Your task to perform on an android device: Open calendar and show me the first week of next month Image 0: 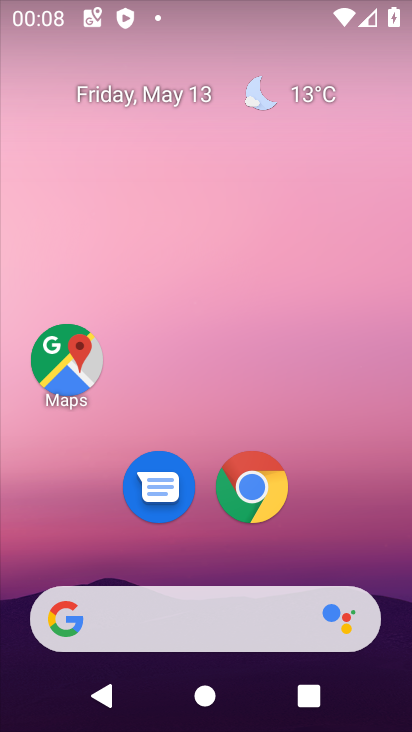
Step 0: click (193, 88)
Your task to perform on an android device: Open calendar and show me the first week of next month Image 1: 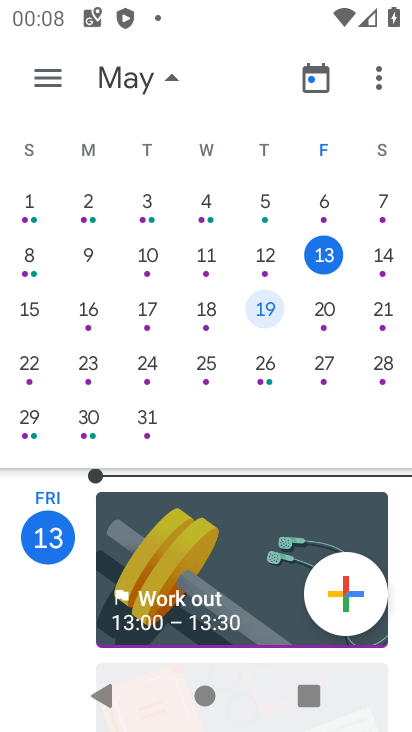
Step 1: click (178, 80)
Your task to perform on an android device: Open calendar and show me the first week of next month Image 2: 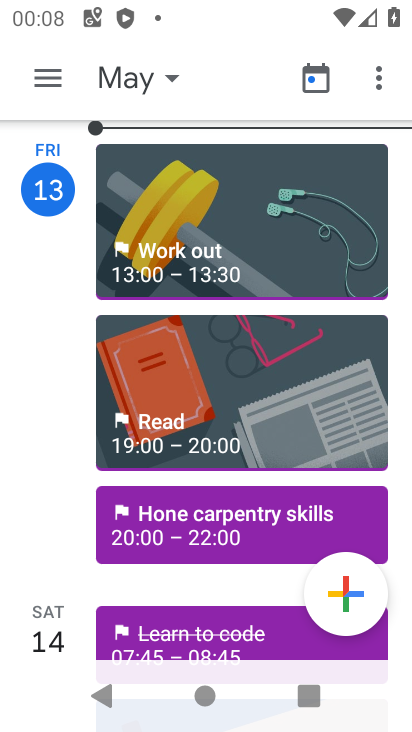
Step 2: click (178, 80)
Your task to perform on an android device: Open calendar and show me the first week of next month Image 3: 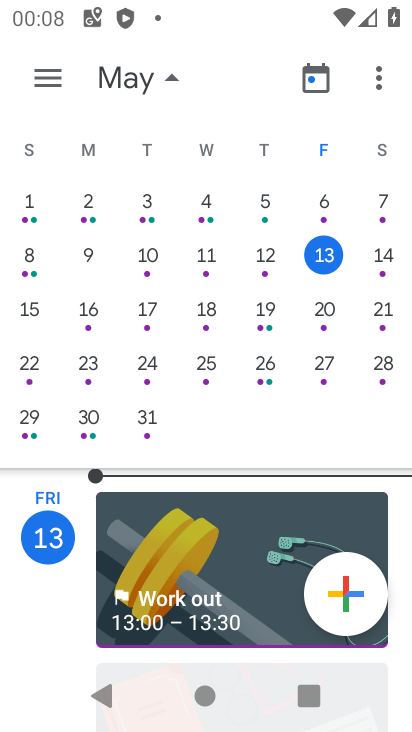
Step 3: drag from (376, 409) to (113, 274)
Your task to perform on an android device: Open calendar and show me the first week of next month Image 4: 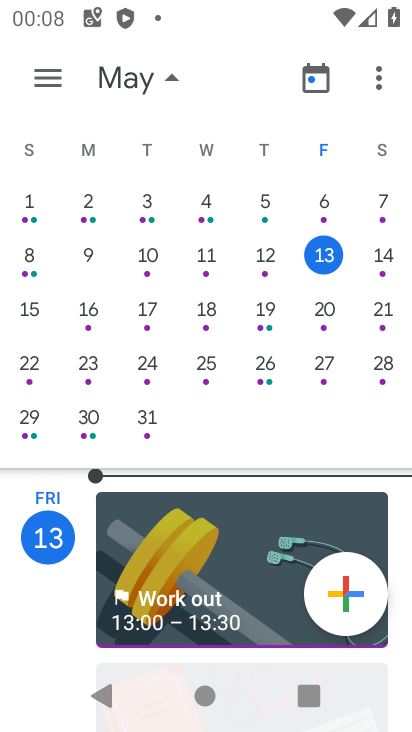
Step 4: drag from (341, 415) to (122, 369)
Your task to perform on an android device: Open calendar and show me the first week of next month Image 5: 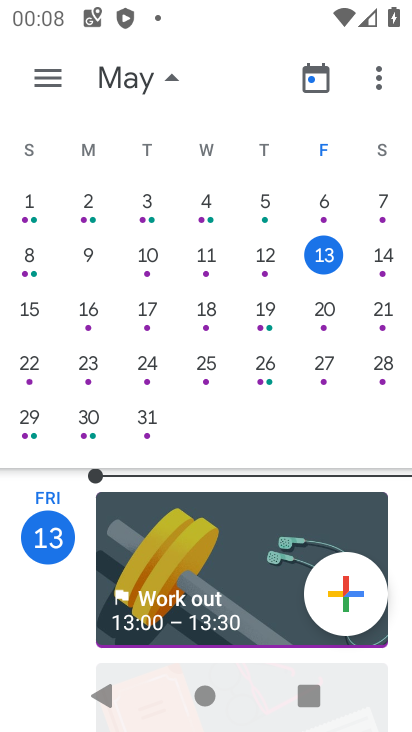
Step 5: drag from (354, 424) to (114, 400)
Your task to perform on an android device: Open calendar and show me the first week of next month Image 6: 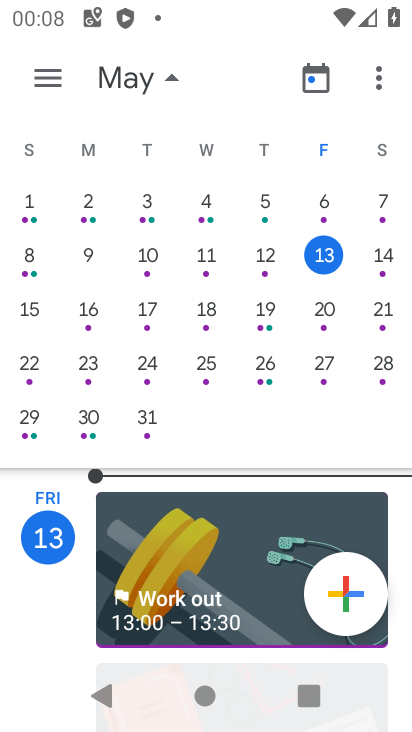
Step 6: drag from (344, 419) to (61, 386)
Your task to perform on an android device: Open calendar and show me the first week of next month Image 7: 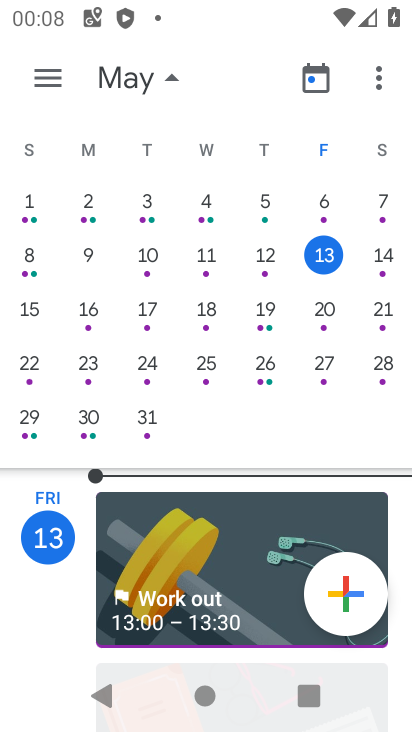
Step 7: click (401, 431)
Your task to perform on an android device: Open calendar and show me the first week of next month Image 8: 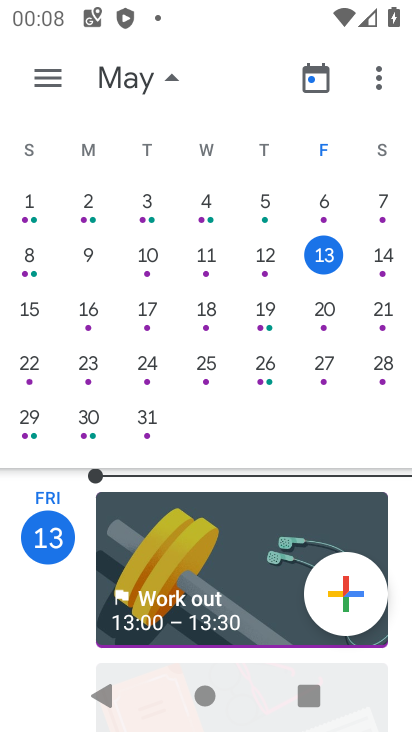
Step 8: click (401, 431)
Your task to perform on an android device: Open calendar and show me the first week of next month Image 9: 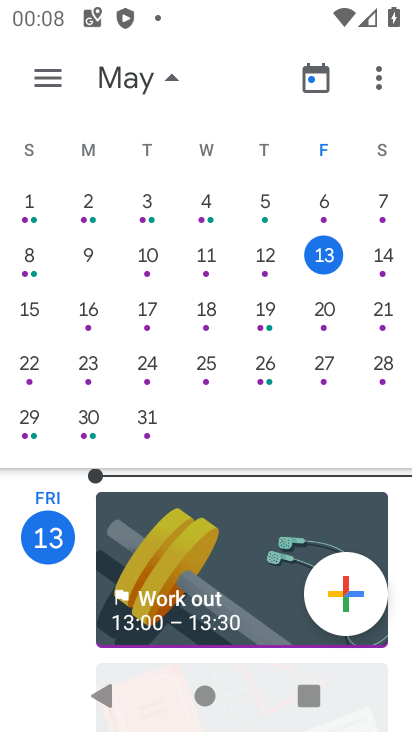
Step 9: task complete